Your task to perform on an android device: turn on the 24-hour format for clock Image 0: 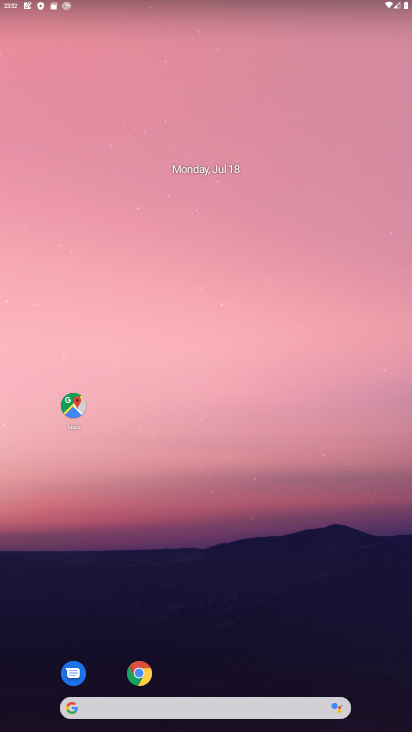
Step 0: drag from (240, 657) to (233, 110)
Your task to perform on an android device: turn on the 24-hour format for clock Image 1: 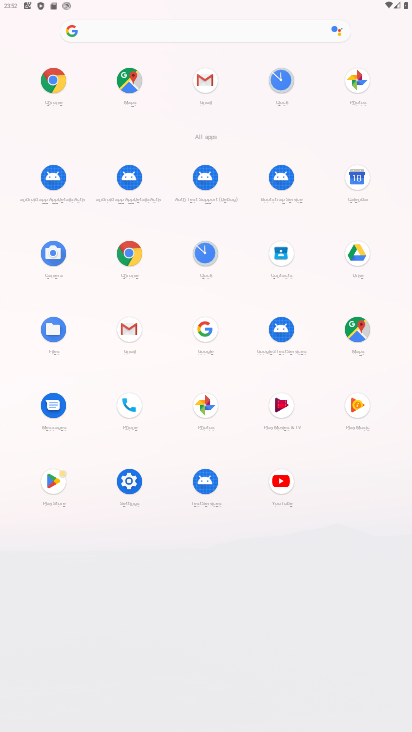
Step 1: click (278, 83)
Your task to perform on an android device: turn on the 24-hour format for clock Image 2: 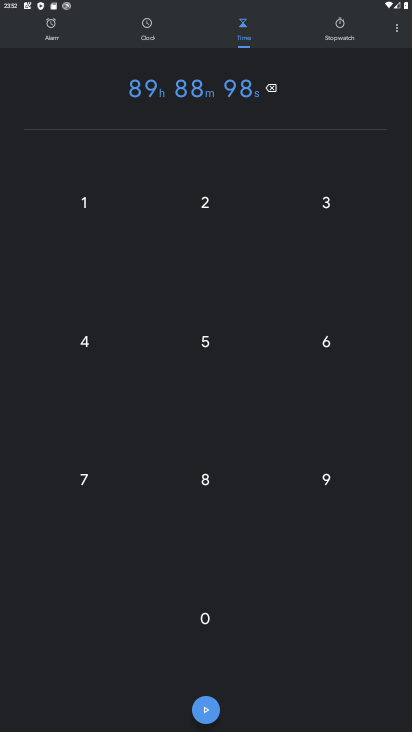
Step 2: click (398, 31)
Your task to perform on an android device: turn on the 24-hour format for clock Image 3: 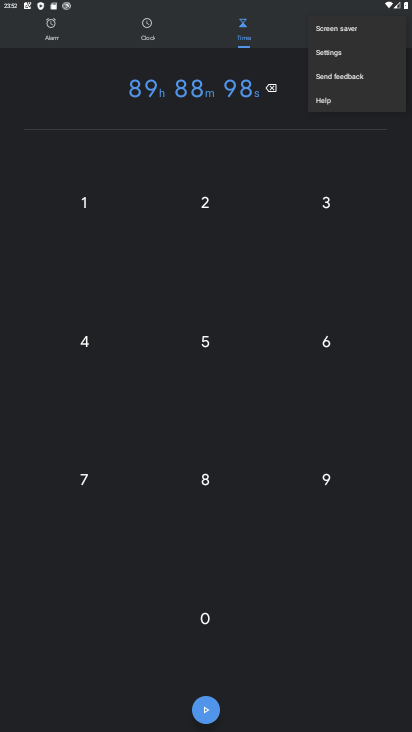
Step 3: click (328, 55)
Your task to perform on an android device: turn on the 24-hour format for clock Image 4: 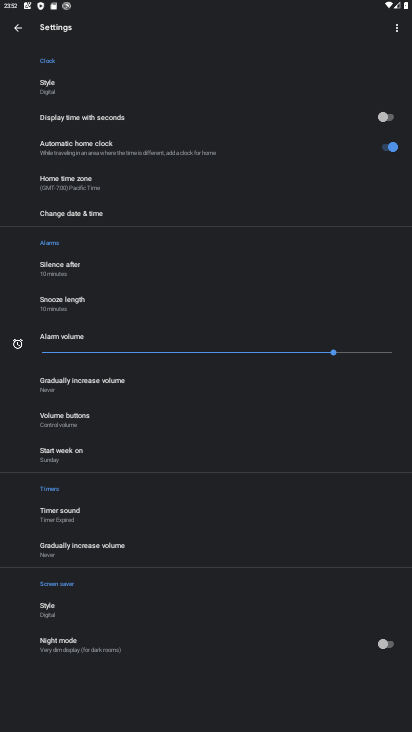
Step 4: click (107, 217)
Your task to perform on an android device: turn on the 24-hour format for clock Image 5: 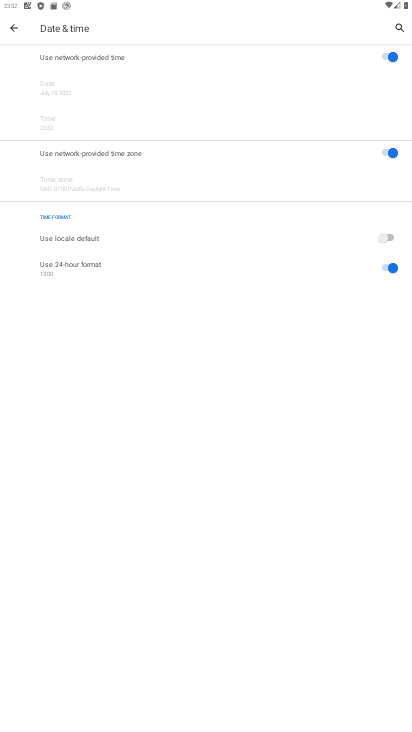
Step 5: task complete